Your task to perform on an android device: toggle priority inbox in the gmail app Image 0: 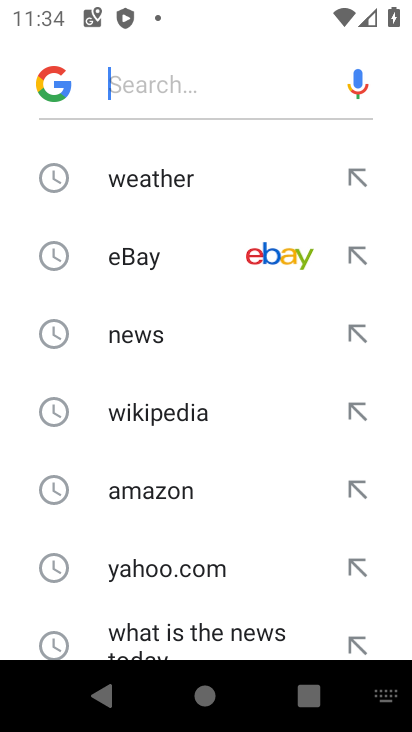
Step 0: press home button
Your task to perform on an android device: toggle priority inbox in the gmail app Image 1: 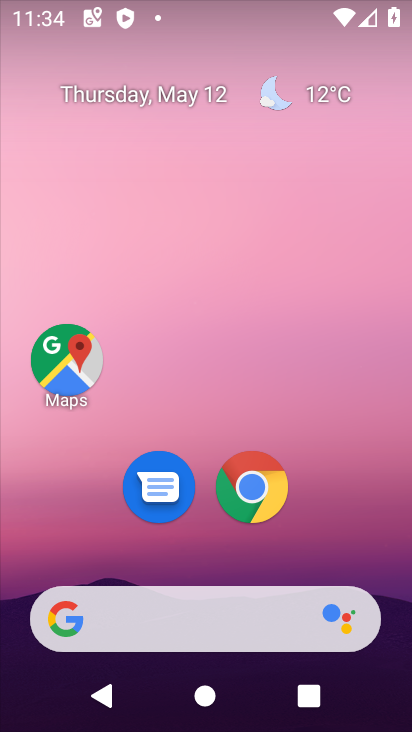
Step 1: drag from (369, 569) to (369, 14)
Your task to perform on an android device: toggle priority inbox in the gmail app Image 2: 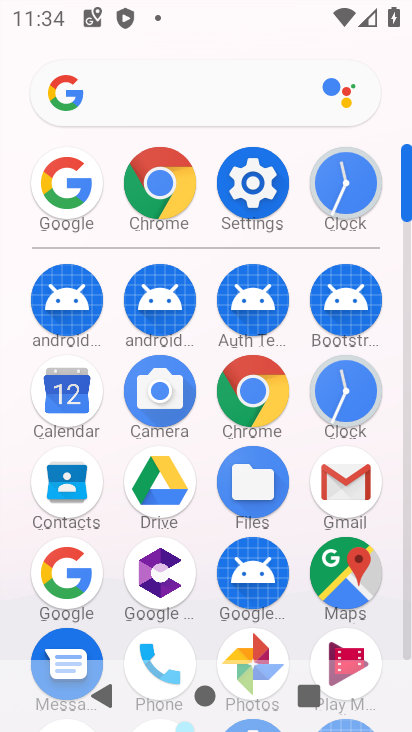
Step 2: click (342, 484)
Your task to perform on an android device: toggle priority inbox in the gmail app Image 3: 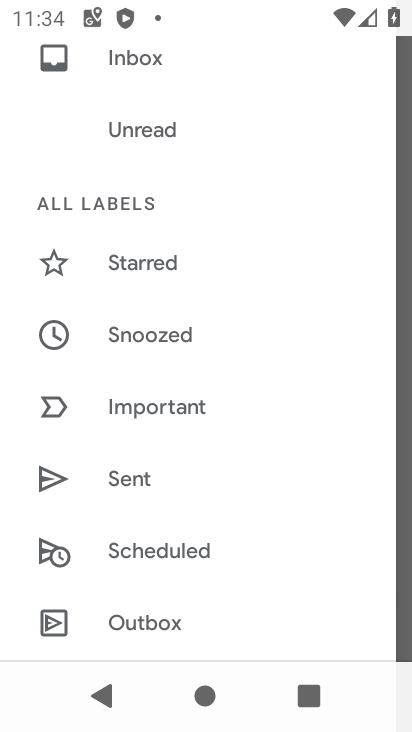
Step 3: drag from (273, 547) to (281, 73)
Your task to perform on an android device: toggle priority inbox in the gmail app Image 4: 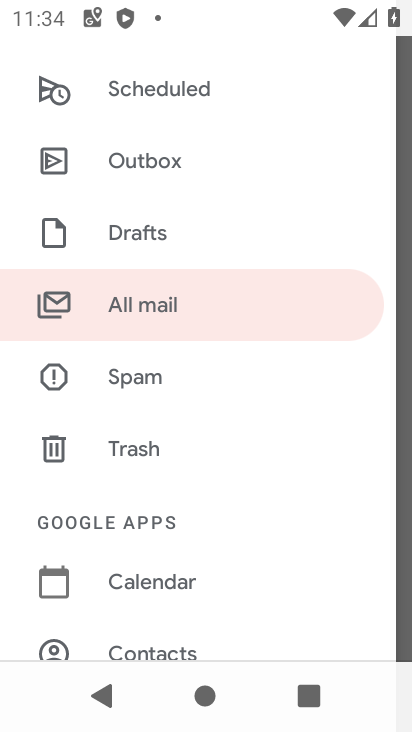
Step 4: drag from (222, 565) to (242, 93)
Your task to perform on an android device: toggle priority inbox in the gmail app Image 5: 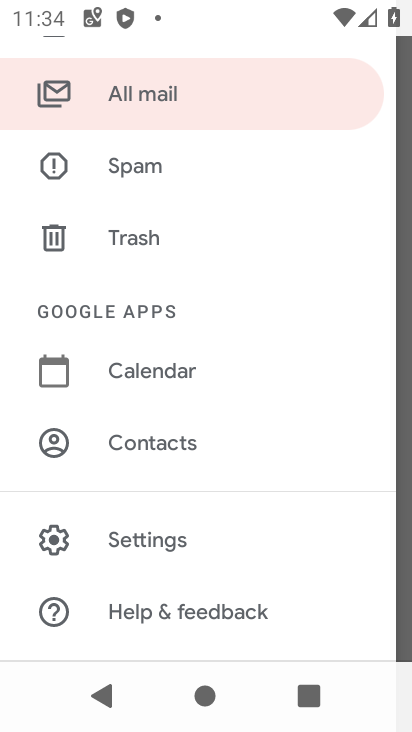
Step 5: drag from (243, 527) to (233, 123)
Your task to perform on an android device: toggle priority inbox in the gmail app Image 6: 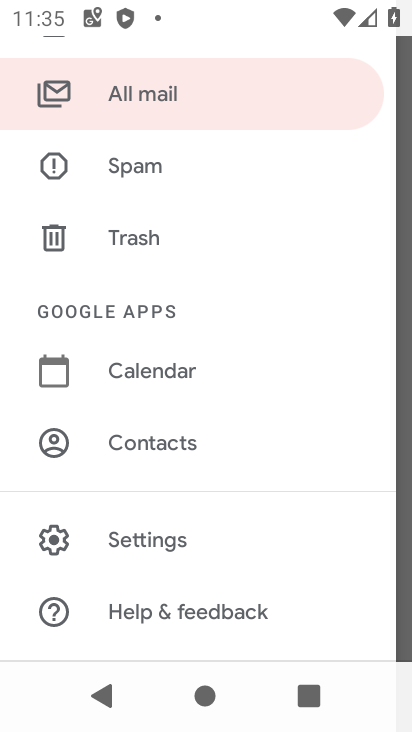
Step 6: click (141, 545)
Your task to perform on an android device: toggle priority inbox in the gmail app Image 7: 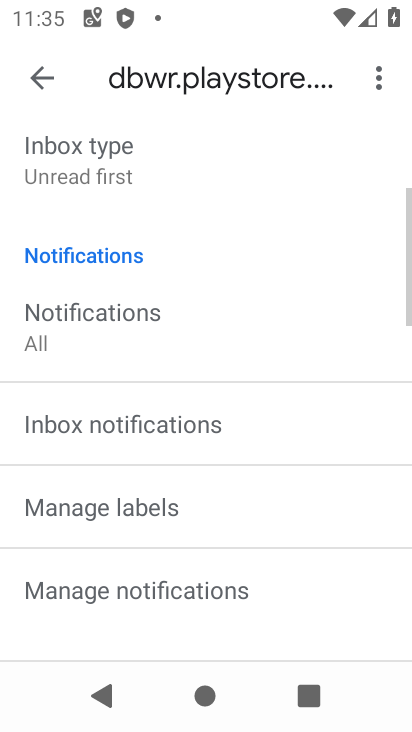
Step 7: drag from (230, 535) to (240, 72)
Your task to perform on an android device: toggle priority inbox in the gmail app Image 8: 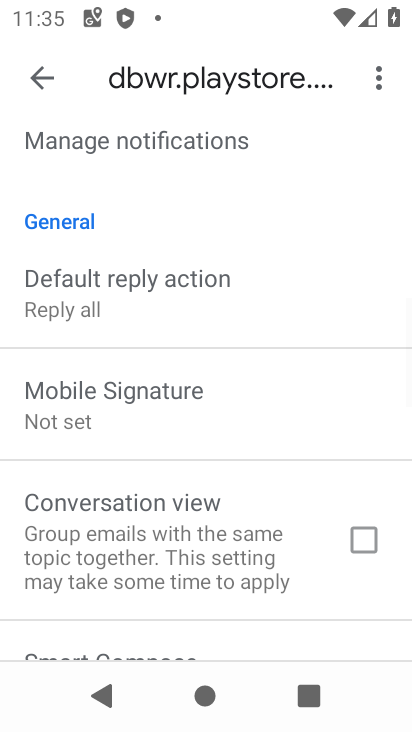
Step 8: drag from (199, 497) to (202, 93)
Your task to perform on an android device: toggle priority inbox in the gmail app Image 9: 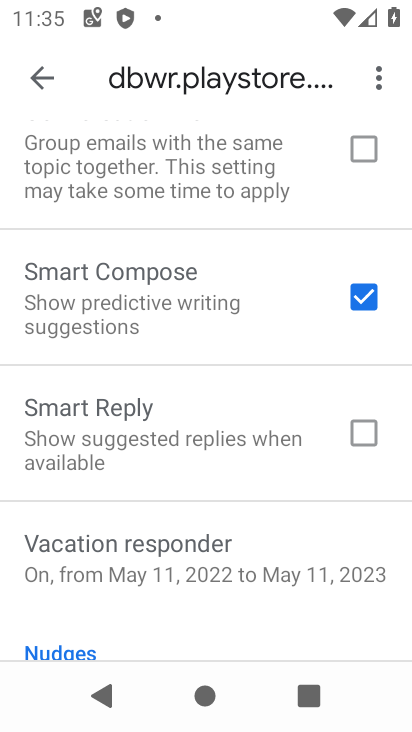
Step 9: drag from (164, 494) to (173, 717)
Your task to perform on an android device: toggle priority inbox in the gmail app Image 10: 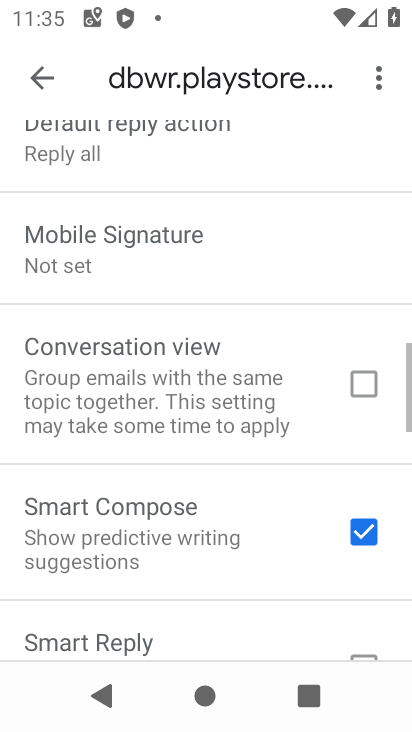
Step 10: drag from (194, 267) to (169, 676)
Your task to perform on an android device: toggle priority inbox in the gmail app Image 11: 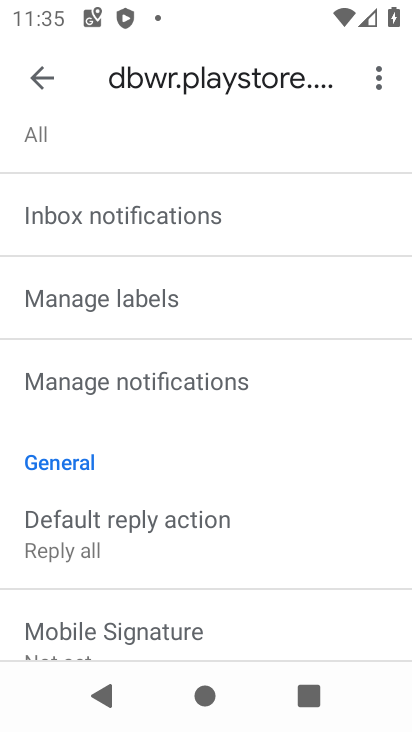
Step 11: drag from (154, 270) to (158, 547)
Your task to perform on an android device: toggle priority inbox in the gmail app Image 12: 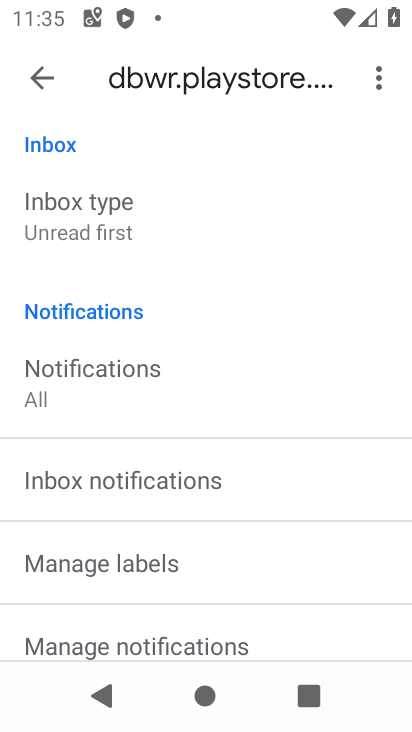
Step 12: click (77, 237)
Your task to perform on an android device: toggle priority inbox in the gmail app Image 13: 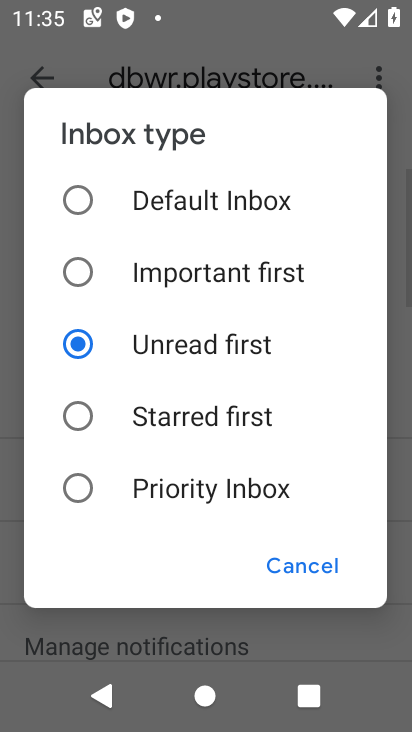
Step 13: click (91, 484)
Your task to perform on an android device: toggle priority inbox in the gmail app Image 14: 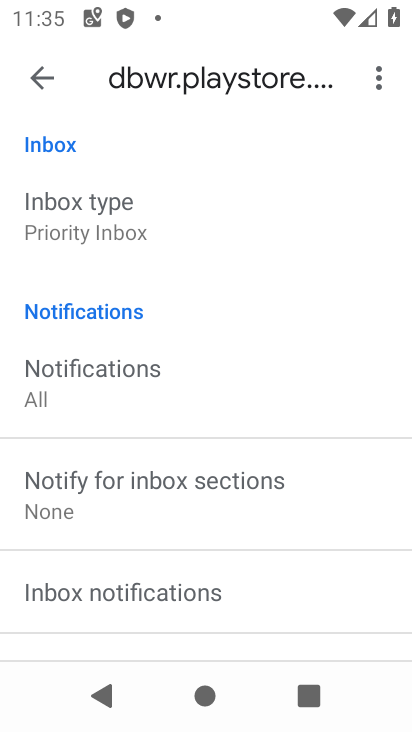
Step 14: task complete